Your task to perform on an android device: turn on wifi Image 0: 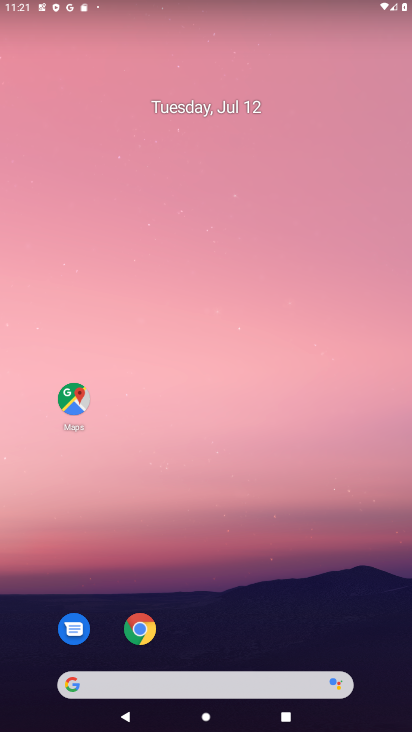
Step 0: drag from (261, 654) to (256, 280)
Your task to perform on an android device: turn on wifi Image 1: 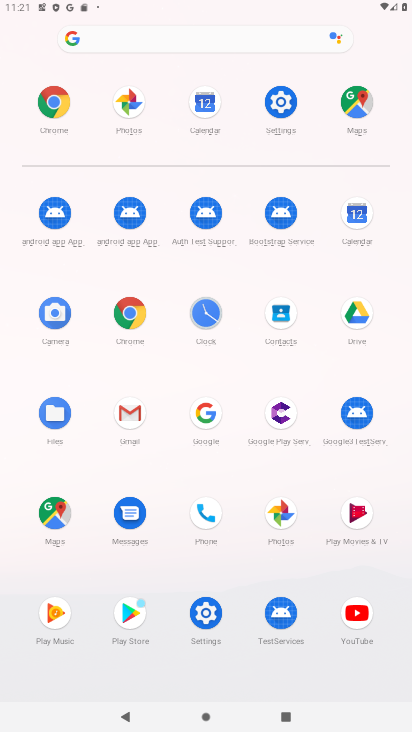
Step 1: click (287, 94)
Your task to perform on an android device: turn on wifi Image 2: 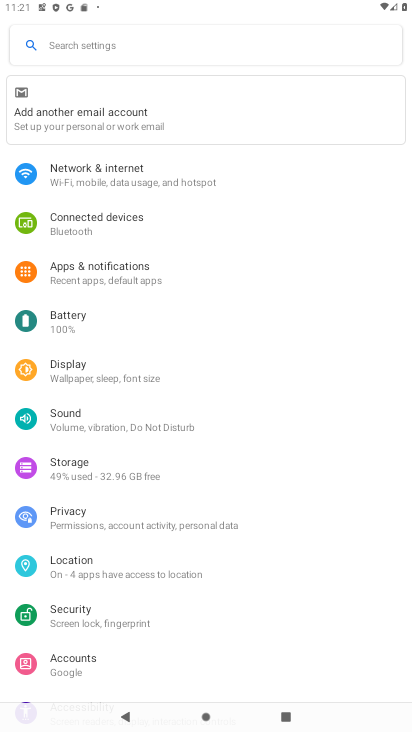
Step 2: click (135, 173)
Your task to perform on an android device: turn on wifi Image 3: 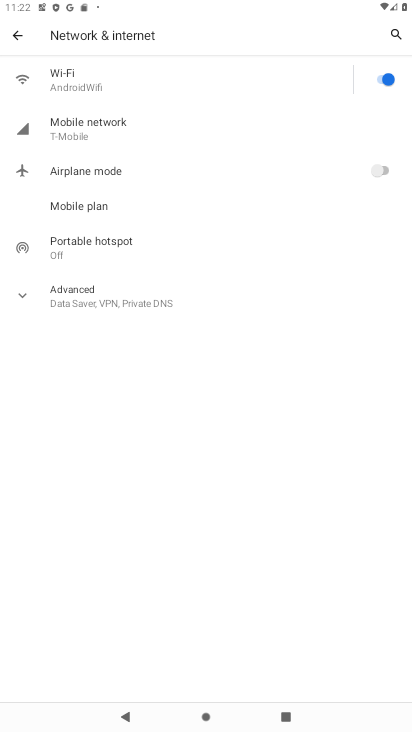
Step 3: task complete